Your task to perform on an android device: empty trash in the gmail app Image 0: 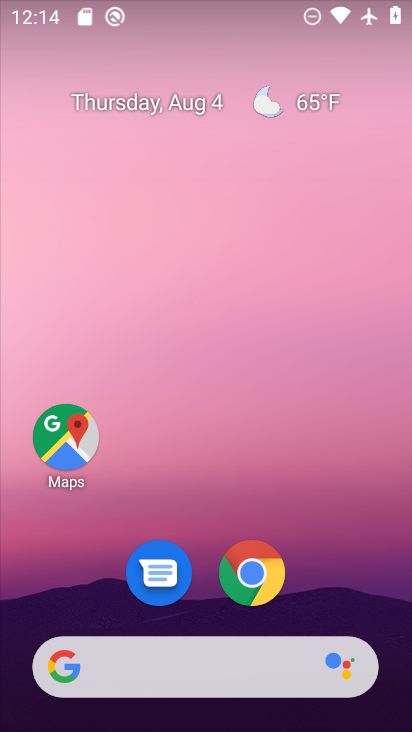
Step 0: drag from (382, 533) to (337, 325)
Your task to perform on an android device: empty trash in the gmail app Image 1: 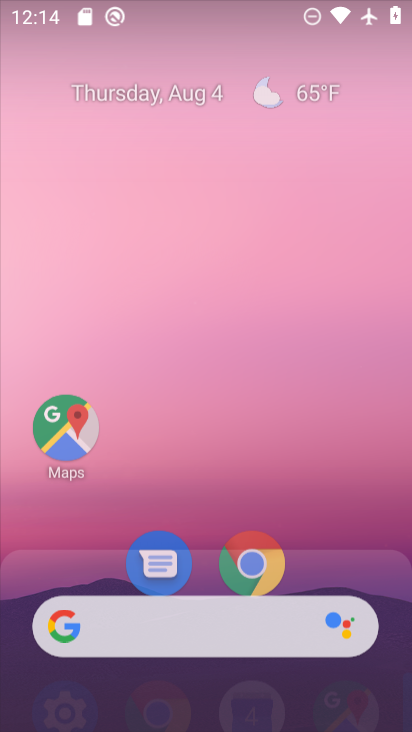
Step 1: click (328, 346)
Your task to perform on an android device: empty trash in the gmail app Image 2: 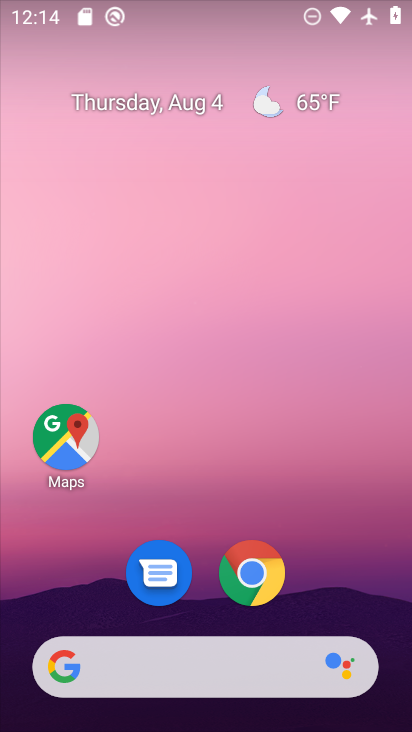
Step 2: click (359, 573)
Your task to perform on an android device: empty trash in the gmail app Image 3: 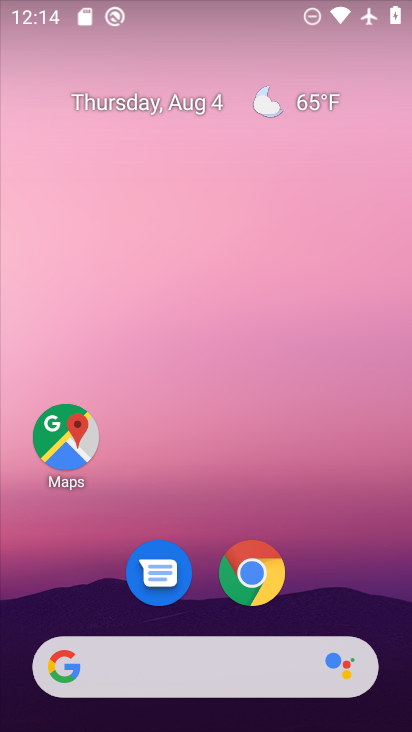
Step 3: click (193, 294)
Your task to perform on an android device: empty trash in the gmail app Image 4: 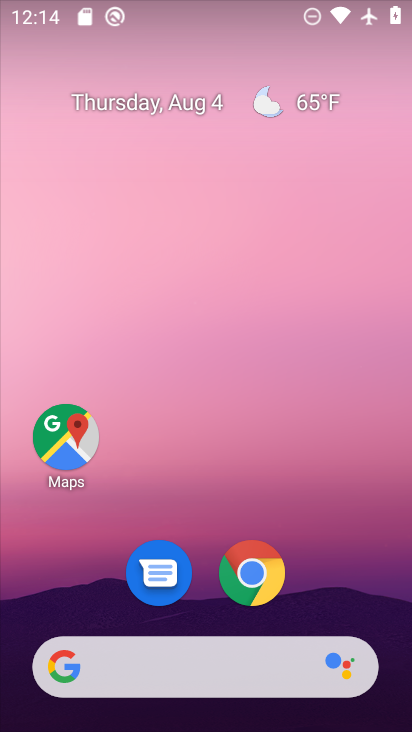
Step 4: click (198, 402)
Your task to perform on an android device: empty trash in the gmail app Image 5: 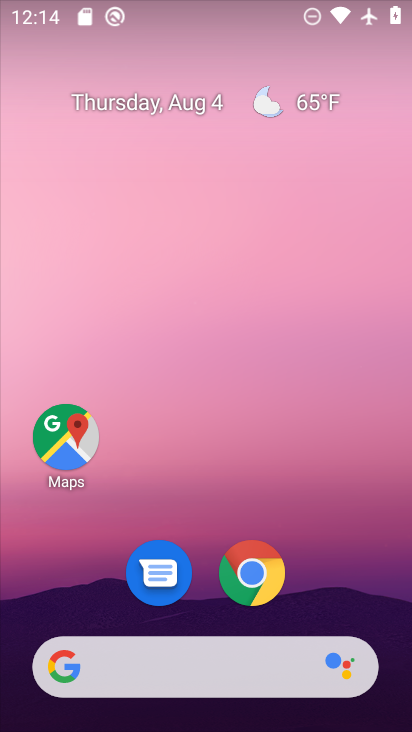
Step 5: drag from (334, 616) to (324, 189)
Your task to perform on an android device: empty trash in the gmail app Image 6: 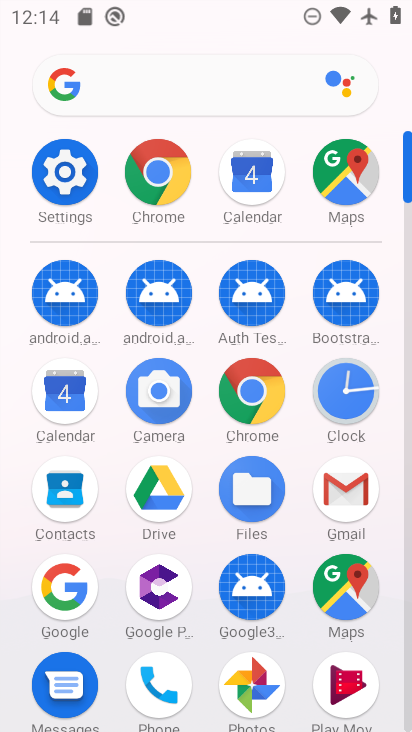
Step 6: click (340, 488)
Your task to perform on an android device: empty trash in the gmail app Image 7: 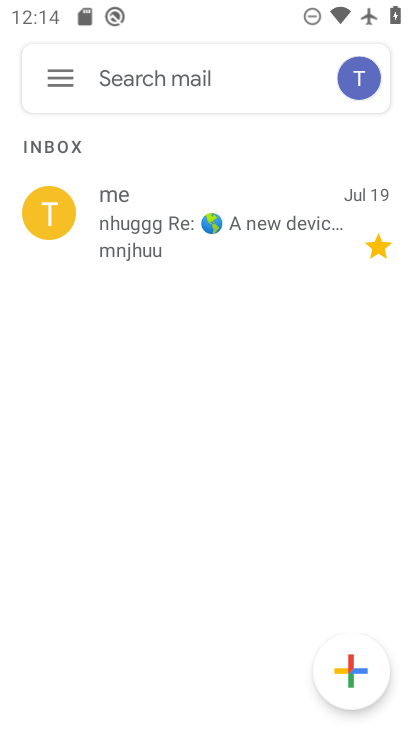
Step 7: click (61, 75)
Your task to perform on an android device: empty trash in the gmail app Image 8: 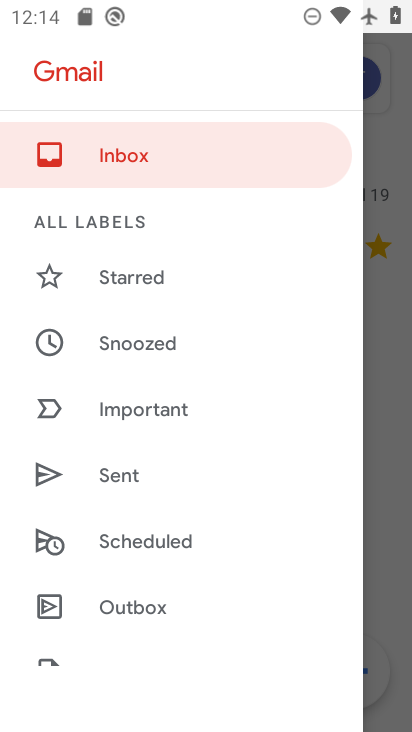
Step 8: drag from (230, 608) to (141, 136)
Your task to perform on an android device: empty trash in the gmail app Image 9: 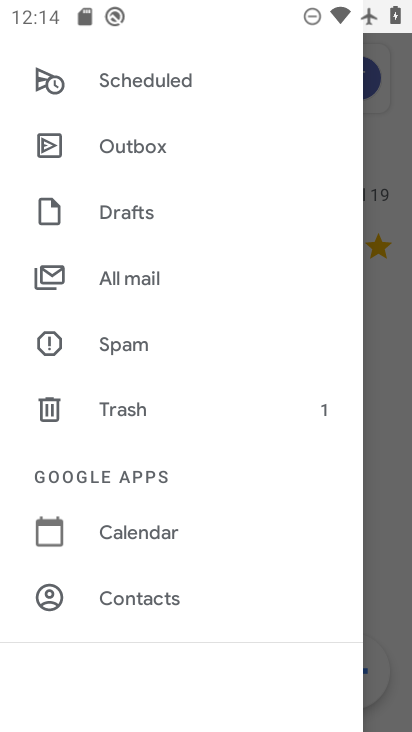
Step 9: click (123, 417)
Your task to perform on an android device: empty trash in the gmail app Image 10: 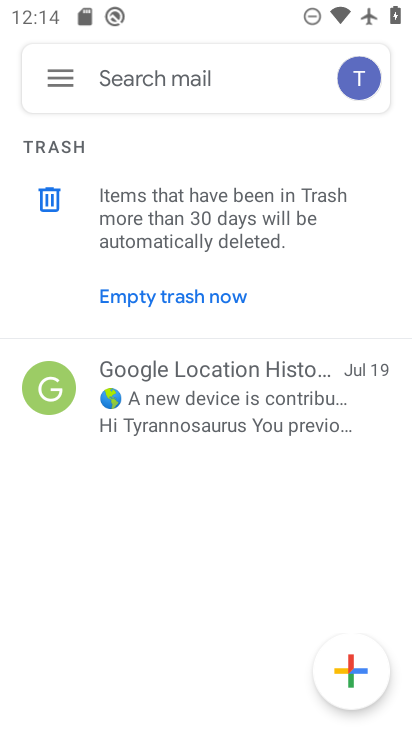
Step 10: click (153, 291)
Your task to perform on an android device: empty trash in the gmail app Image 11: 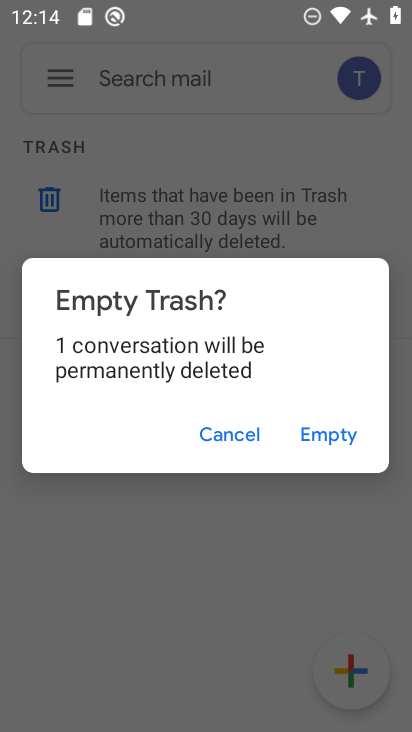
Step 11: click (361, 429)
Your task to perform on an android device: empty trash in the gmail app Image 12: 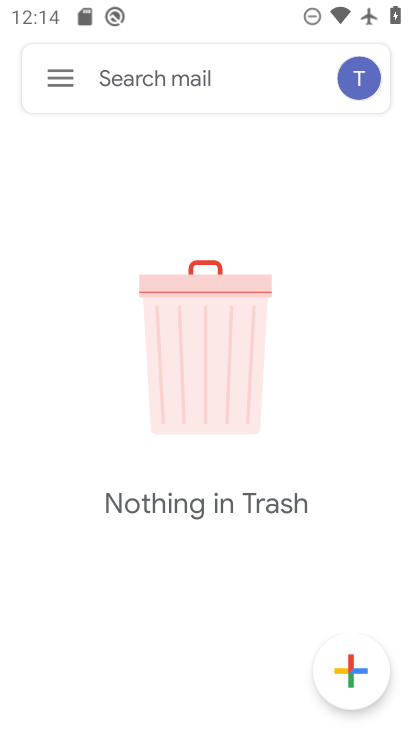
Step 12: task complete